Your task to perform on an android device: Go to Wikipedia Image 0: 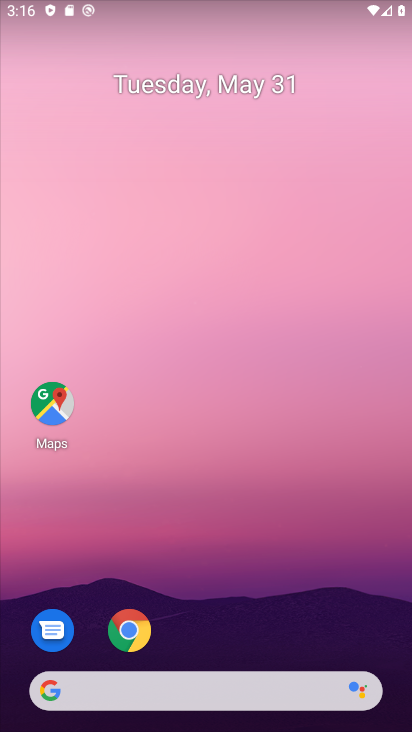
Step 0: drag from (288, 644) to (190, 0)
Your task to perform on an android device: Go to Wikipedia Image 1: 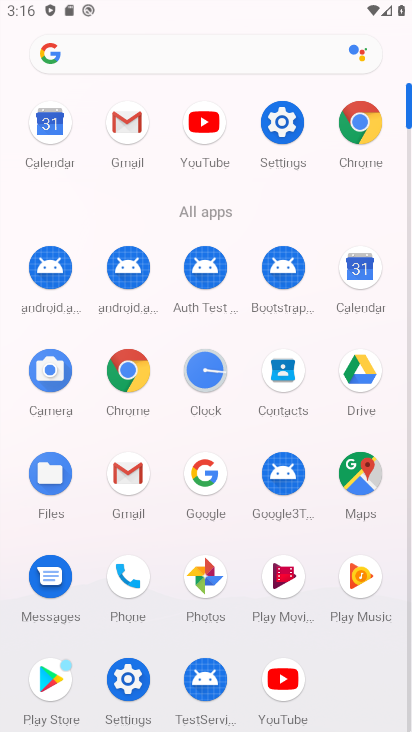
Step 1: click (150, 366)
Your task to perform on an android device: Go to Wikipedia Image 2: 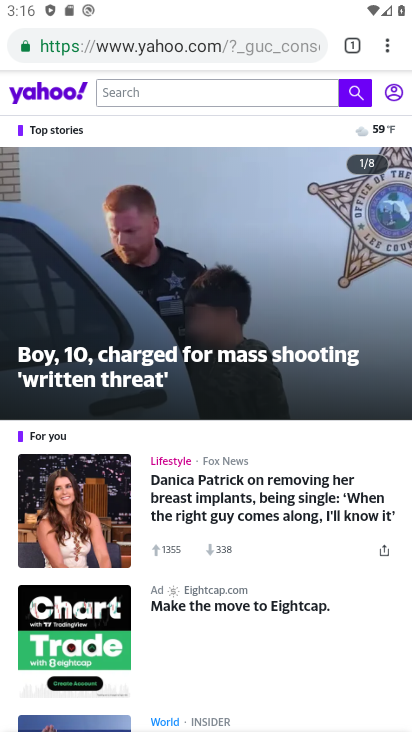
Step 2: click (206, 55)
Your task to perform on an android device: Go to Wikipedia Image 3: 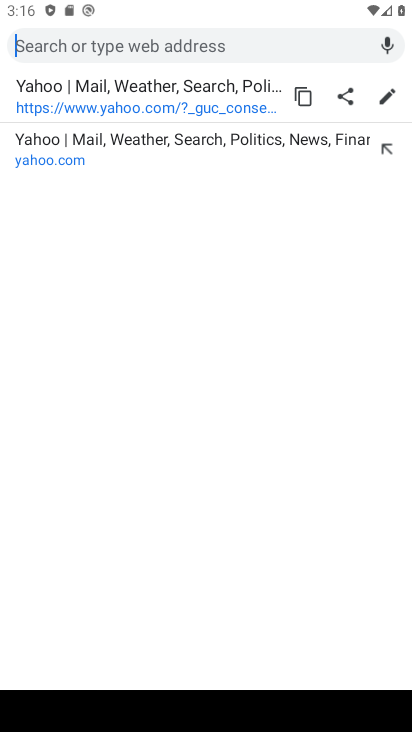
Step 3: click (296, 43)
Your task to perform on an android device: Go to Wikipedia Image 4: 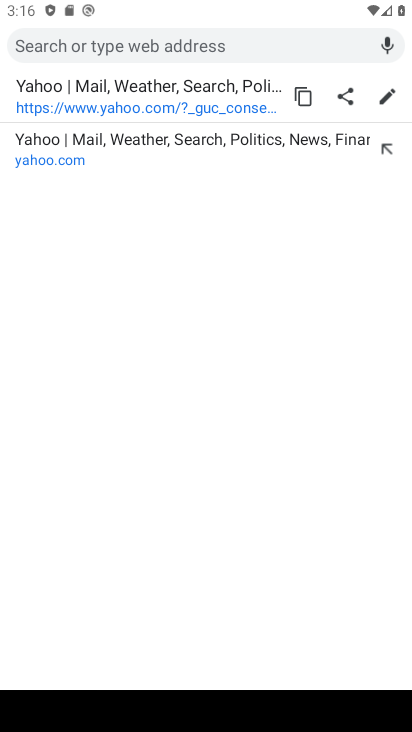
Step 4: type "wikipedia"
Your task to perform on an android device: Go to Wikipedia Image 5: 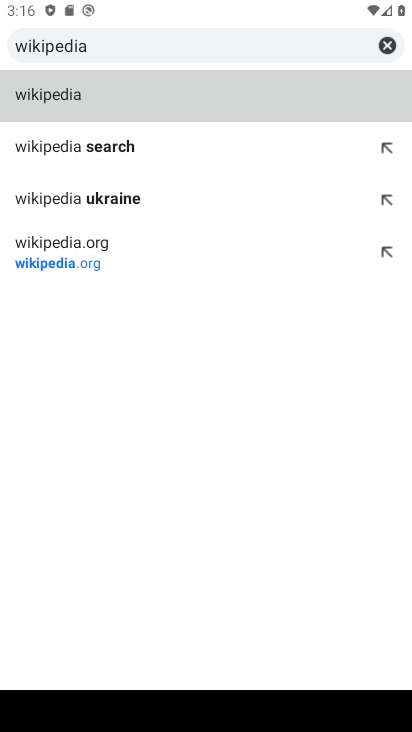
Step 5: click (148, 94)
Your task to perform on an android device: Go to Wikipedia Image 6: 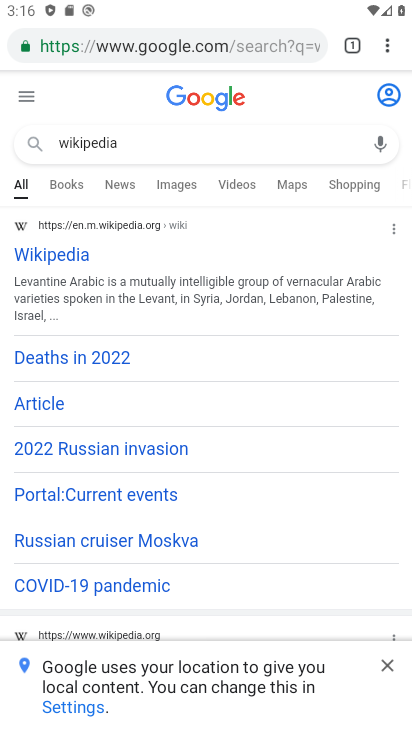
Step 6: task complete